Your task to perform on an android device: toggle improve location accuracy Image 0: 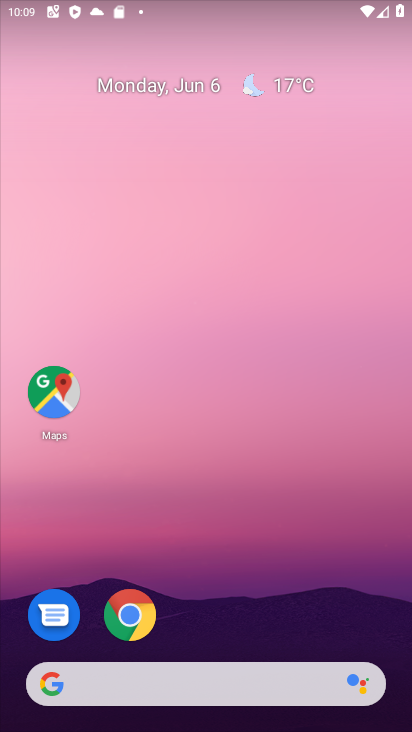
Step 0: drag from (239, 531) to (282, 68)
Your task to perform on an android device: toggle improve location accuracy Image 1: 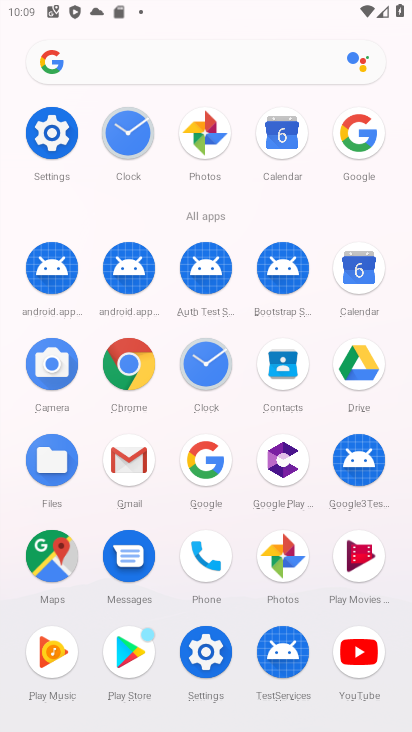
Step 1: click (49, 134)
Your task to perform on an android device: toggle improve location accuracy Image 2: 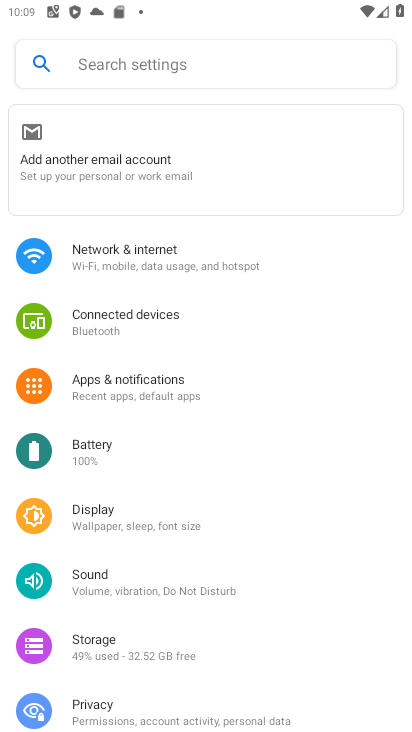
Step 2: drag from (116, 689) to (162, 320)
Your task to perform on an android device: toggle improve location accuracy Image 3: 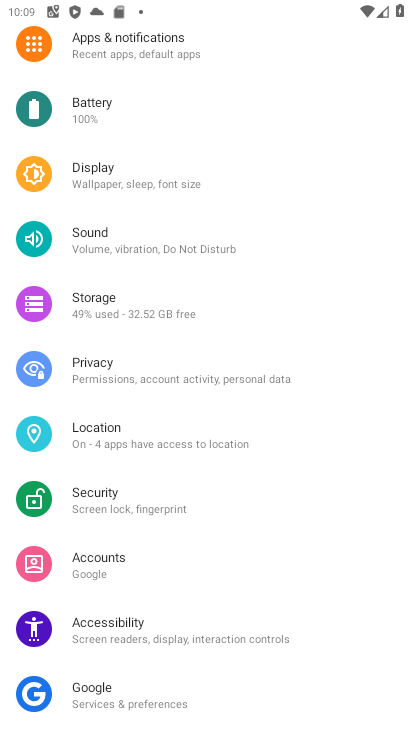
Step 3: click (138, 436)
Your task to perform on an android device: toggle improve location accuracy Image 4: 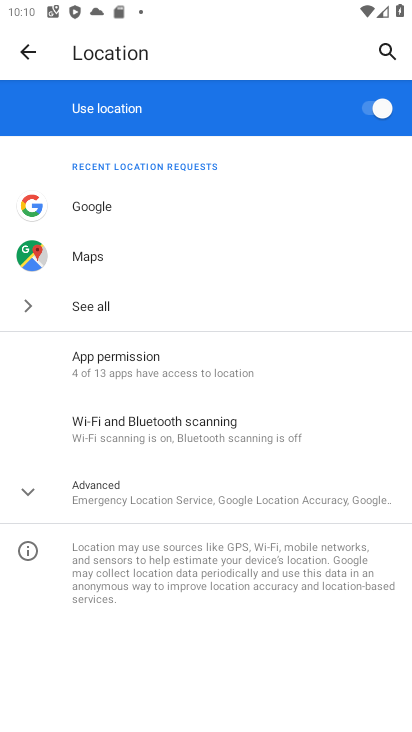
Step 4: click (146, 489)
Your task to perform on an android device: toggle improve location accuracy Image 5: 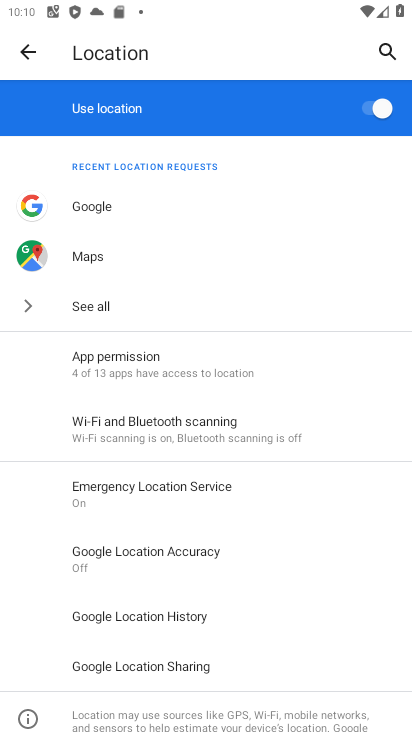
Step 5: click (162, 557)
Your task to perform on an android device: toggle improve location accuracy Image 6: 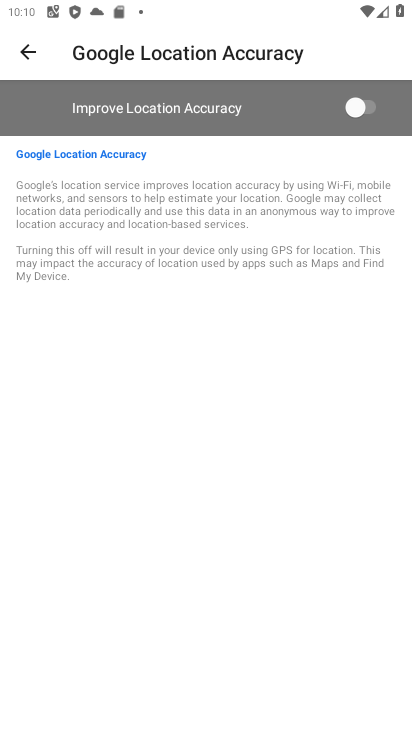
Step 6: click (364, 105)
Your task to perform on an android device: toggle improve location accuracy Image 7: 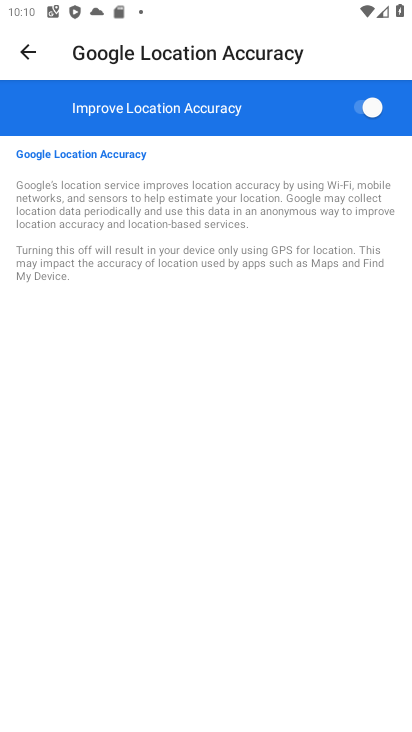
Step 7: task complete